Your task to perform on an android device: Go to notification settings Image 0: 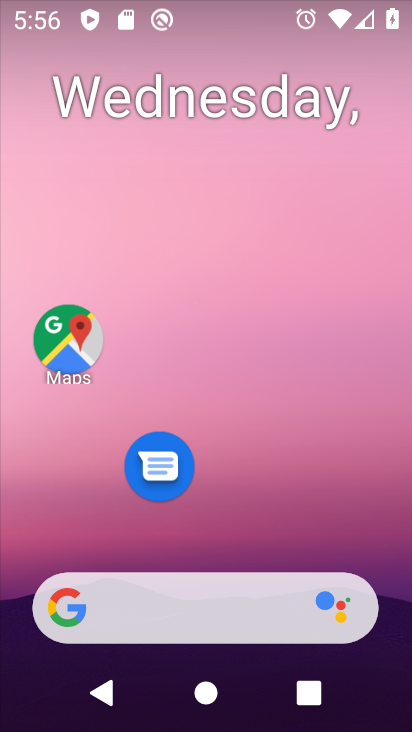
Step 0: drag from (324, 491) to (324, 141)
Your task to perform on an android device: Go to notification settings Image 1: 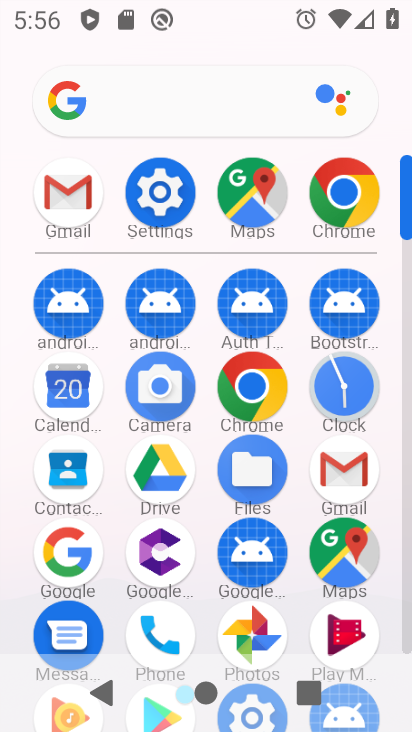
Step 1: click (172, 181)
Your task to perform on an android device: Go to notification settings Image 2: 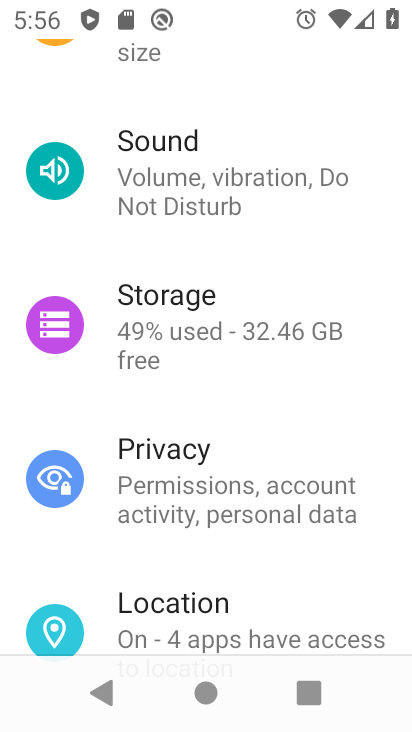
Step 2: drag from (322, 561) to (320, 163)
Your task to perform on an android device: Go to notification settings Image 3: 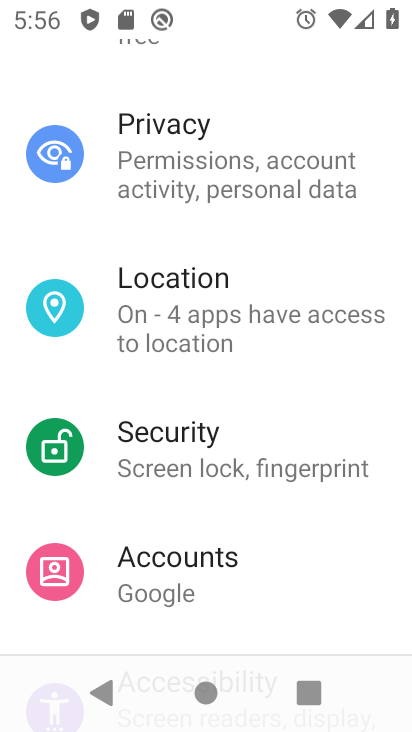
Step 3: drag from (325, 559) to (318, 234)
Your task to perform on an android device: Go to notification settings Image 4: 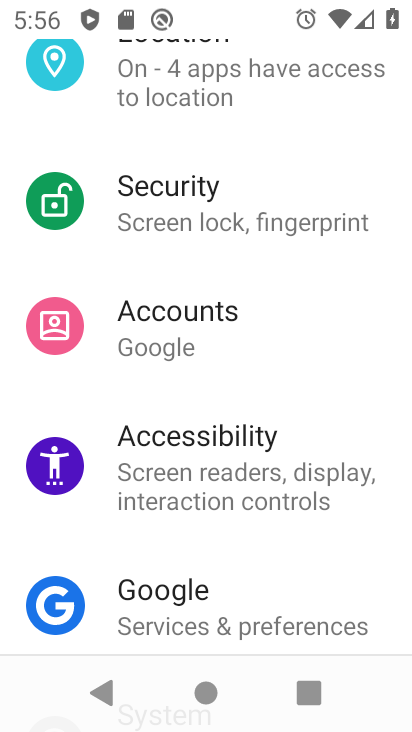
Step 4: drag from (281, 555) to (278, 176)
Your task to perform on an android device: Go to notification settings Image 5: 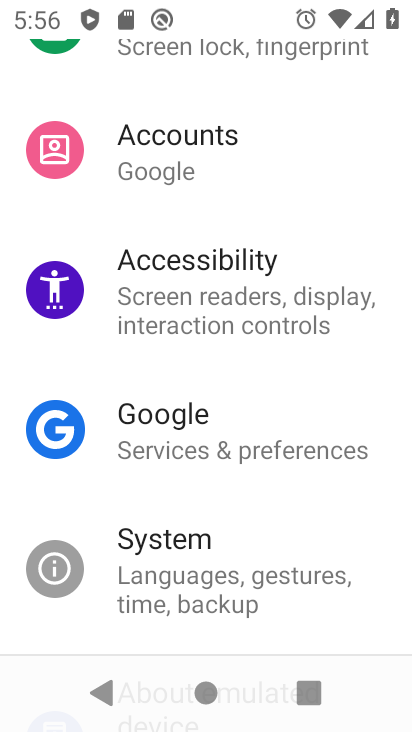
Step 5: drag from (285, 556) to (270, 236)
Your task to perform on an android device: Go to notification settings Image 6: 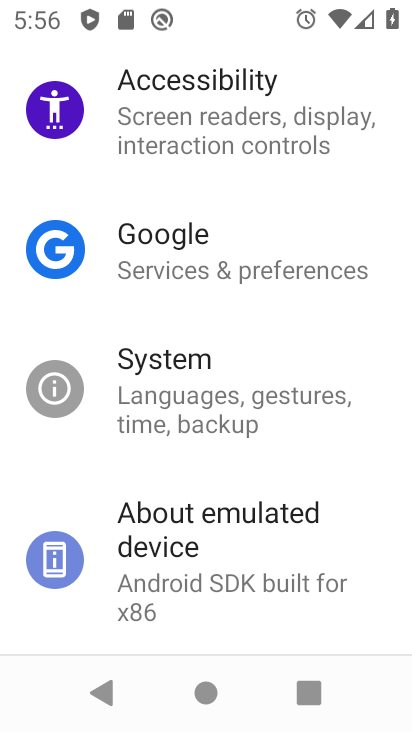
Step 6: drag from (286, 127) to (261, 728)
Your task to perform on an android device: Go to notification settings Image 7: 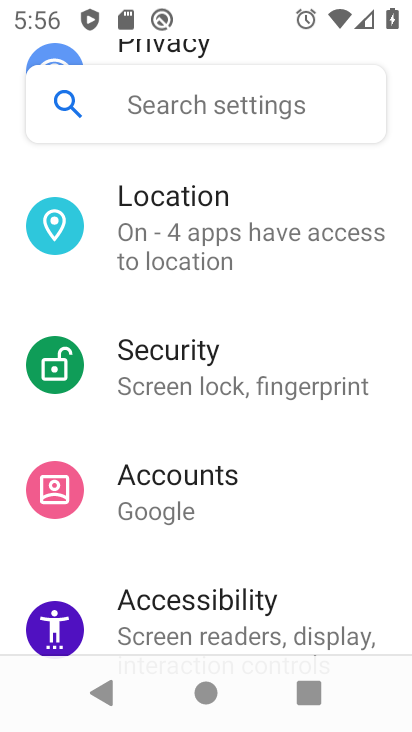
Step 7: drag from (278, 400) to (273, 544)
Your task to perform on an android device: Go to notification settings Image 8: 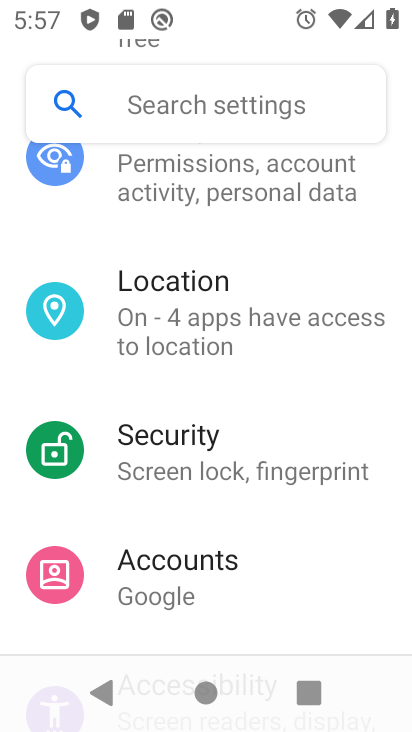
Step 8: drag from (272, 320) to (259, 556)
Your task to perform on an android device: Go to notification settings Image 9: 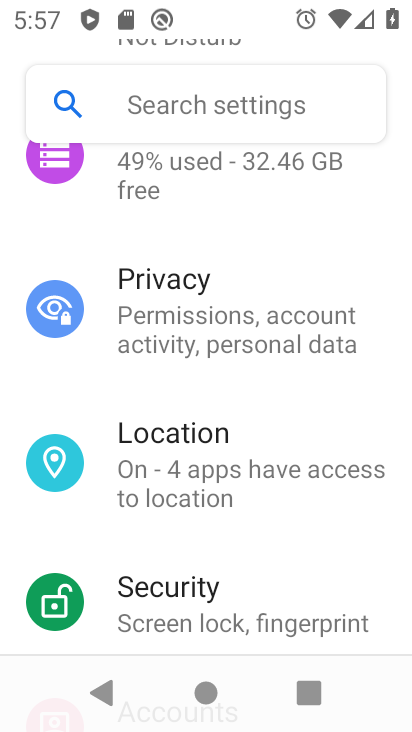
Step 9: drag from (247, 261) to (246, 549)
Your task to perform on an android device: Go to notification settings Image 10: 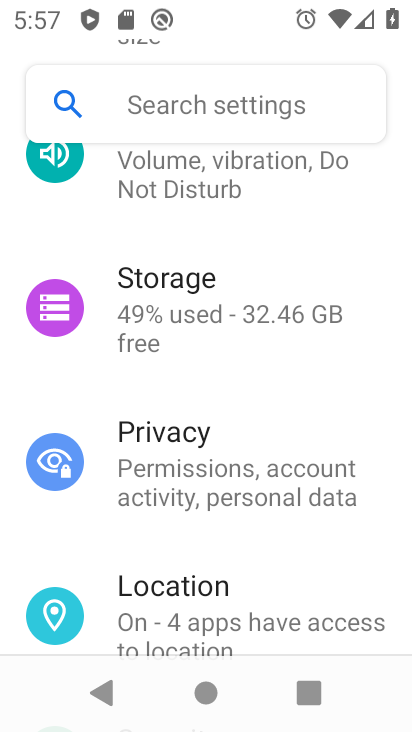
Step 10: drag from (220, 338) to (204, 534)
Your task to perform on an android device: Go to notification settings Image 11: 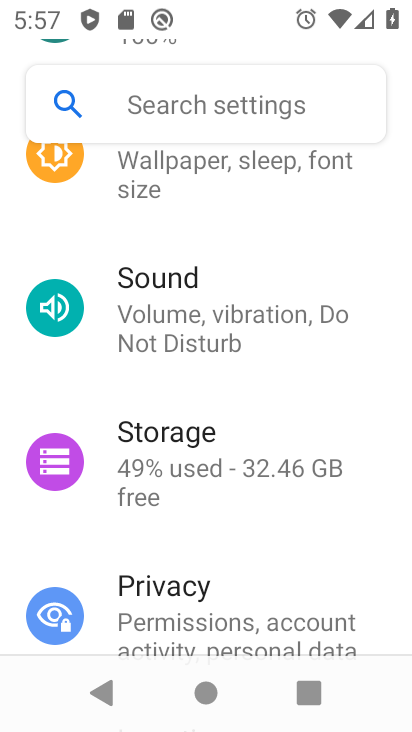
Step 11: drag from (262, 245) to (264, 645)
Your task to perform on an android device: Go to notification settings Image 12: 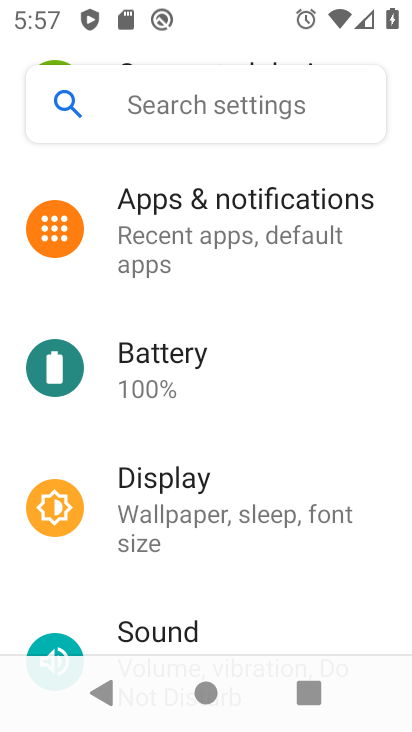
Step 12: click (232, 234)
Your task to perform on an android device: Go to notification settings Image 13: 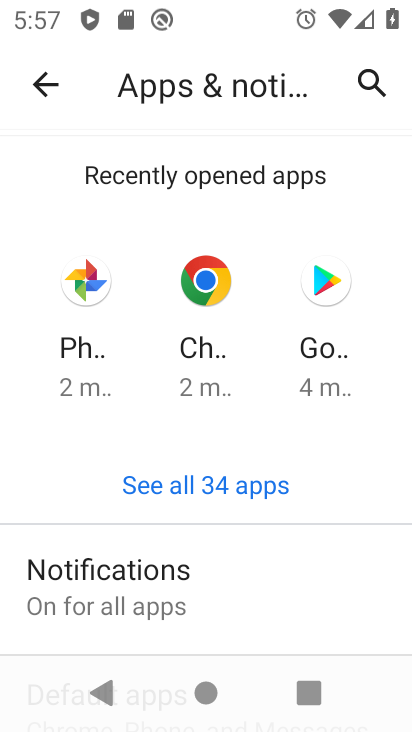
Step 13: click (118, 563)
Your task to perform on an android device: Go to notification settings Image 14: 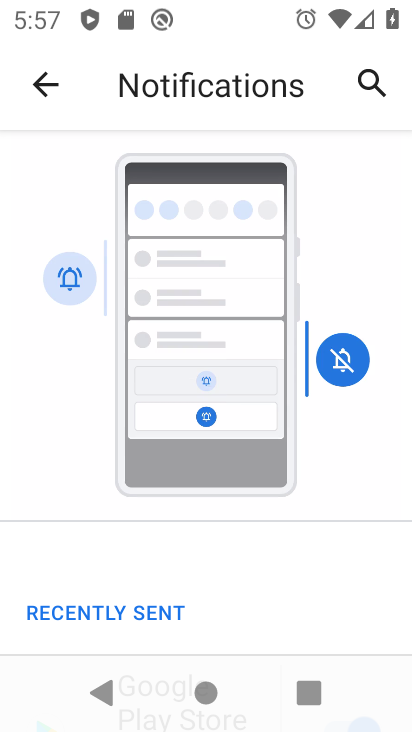
Step 14: task complete